Your task to perform on an android device: turn on the 12-hour format for clock Image 0: 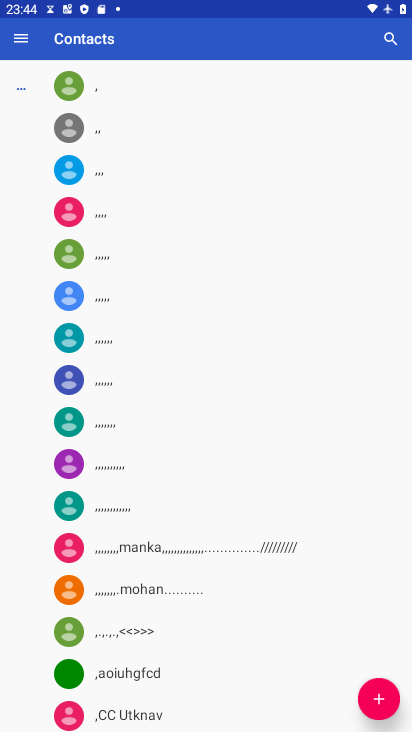
Step 0: press home button
Your task to perform on an android device: turn on the 12-hour format for clock Image 1: 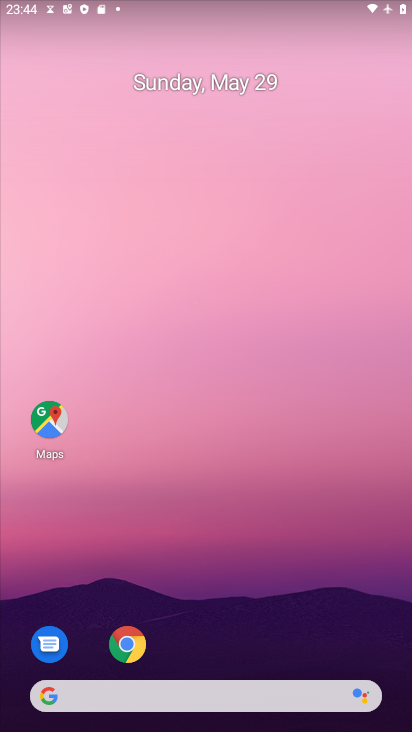
Step 1: drag from (229, 640) to (259, 200)
Your task to perform on an android device: turn on the 12-hour format for clock Image 2: 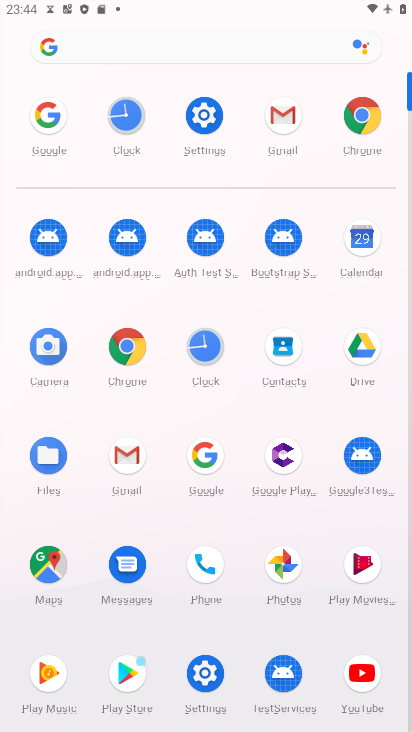
Step 2: click (194, 347)
Your task to perform on an android device: turn on the 12-hour format for clock Image 3: 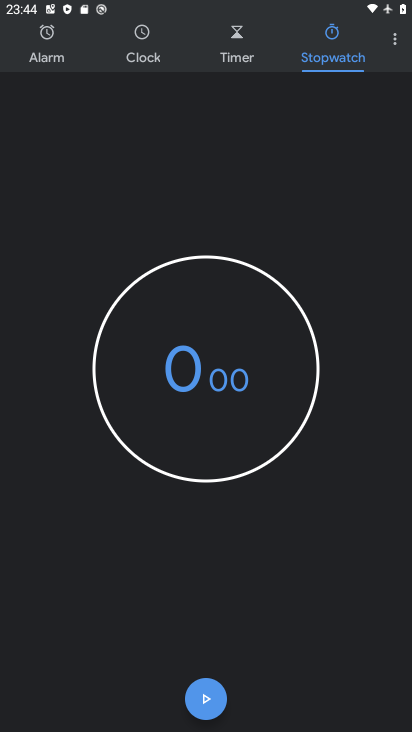
Step 3: click (391, 44)
Your task to perform on an android device: turn on the 12-hour format for clock Image 4: 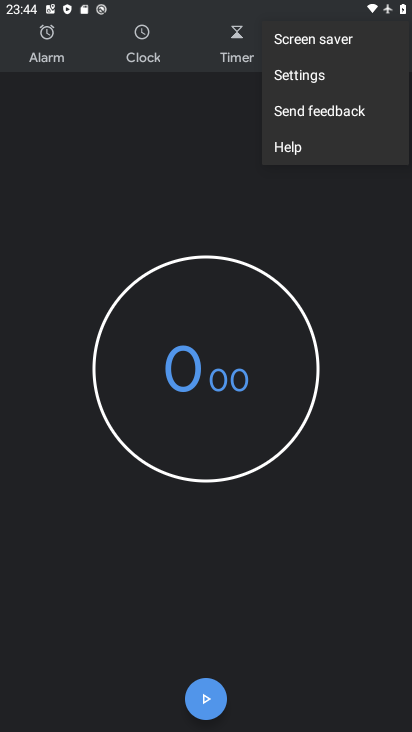
Step 4: click (305, 77)
Your task to perform on an android device: turn on the 12-hour format for clock Image 5: 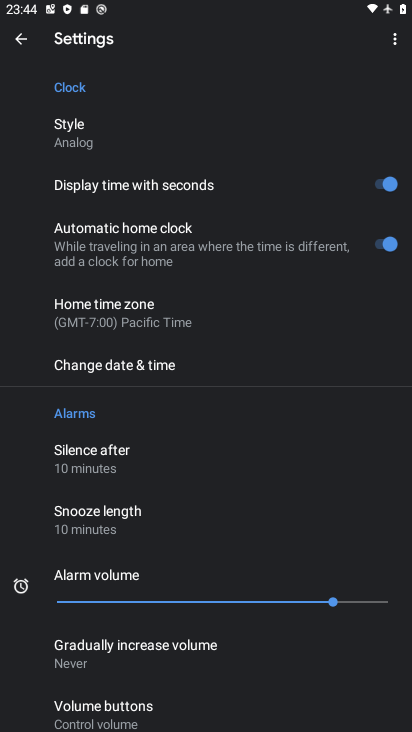
Step 5: click (139, 355)
Your task to perform on an android device: turn on the 12-hour format for clock Image 6: 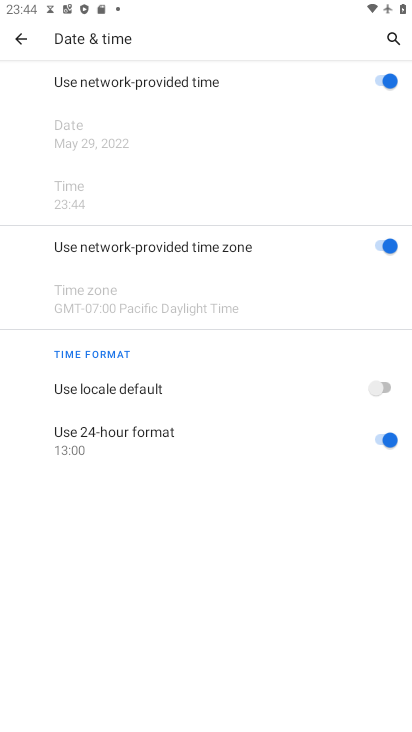
Step 6: click (387, 387)
Your task to perform on an android device: turn on the 12-hour format for clock Image 7: 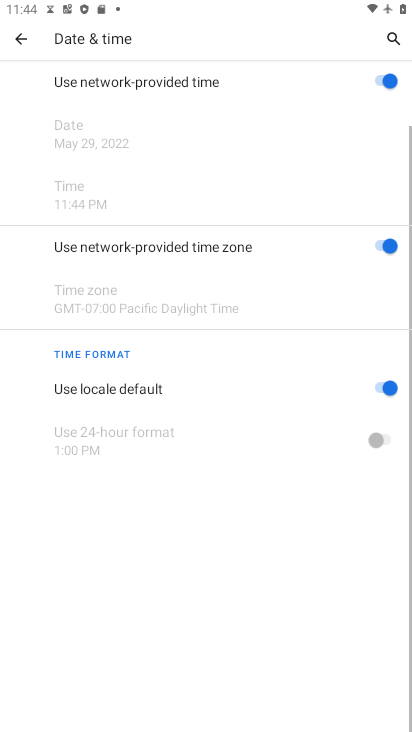
Step 7: click (377, 433)
Your task to perform on an android device: turn on the 12-hour format for clock Image 8: 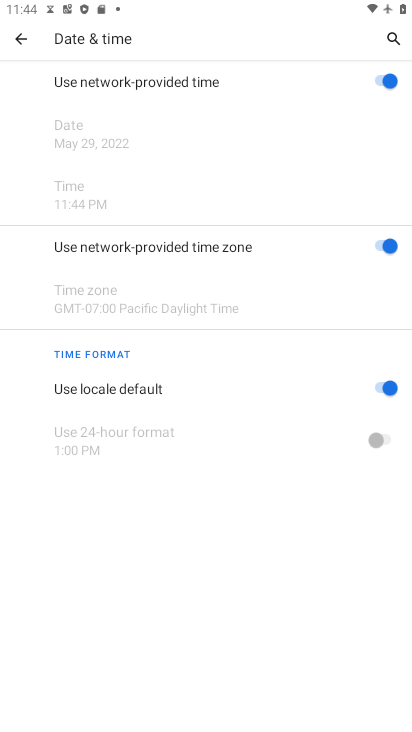
Step 8: click (385, 438)
Your task to perform on an android device: turn on the 12-hour format for clock Image 9: 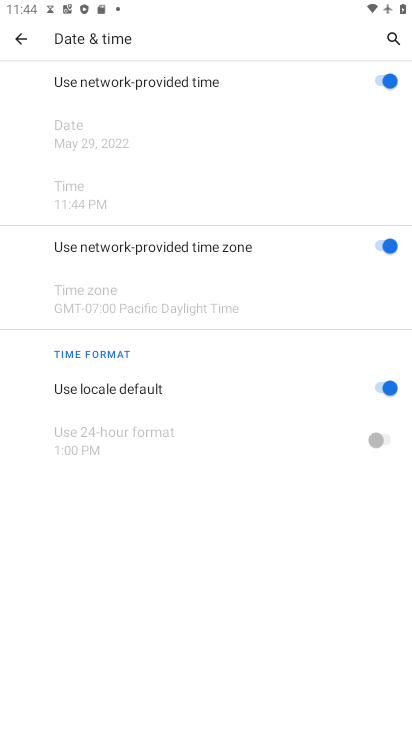
Step 9: click (382, 380)
Your task to perform on an android device: turn on the 12-hour format for clock Image 10: 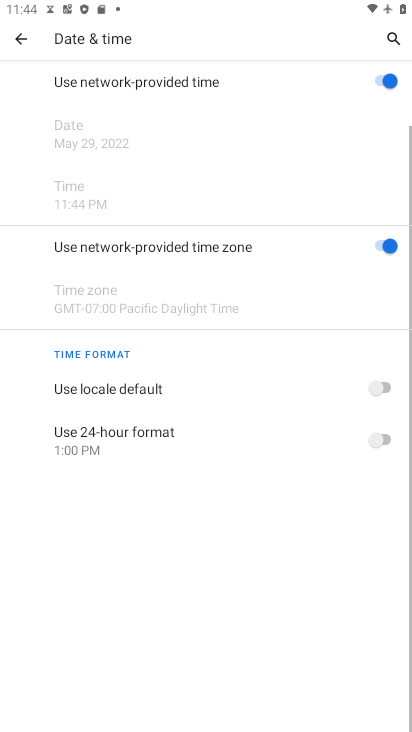
Step 10: click (380, 436)
Your task to perform on an android device: turn on the 12-hour format for clock Image 11: 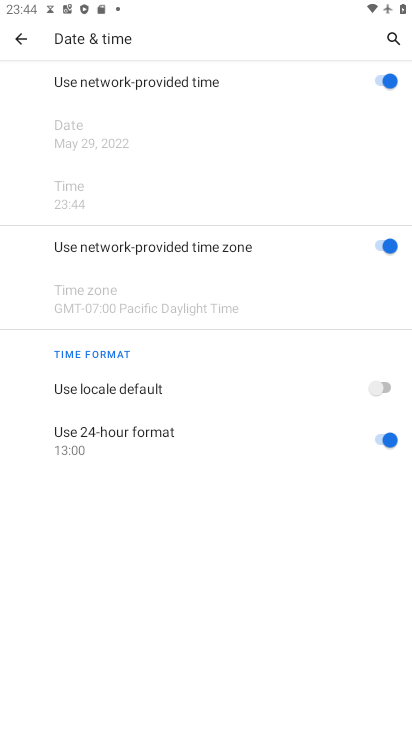
Step 11: task complete